Your task to perform on an android device: Go to CNN.com Image 0: 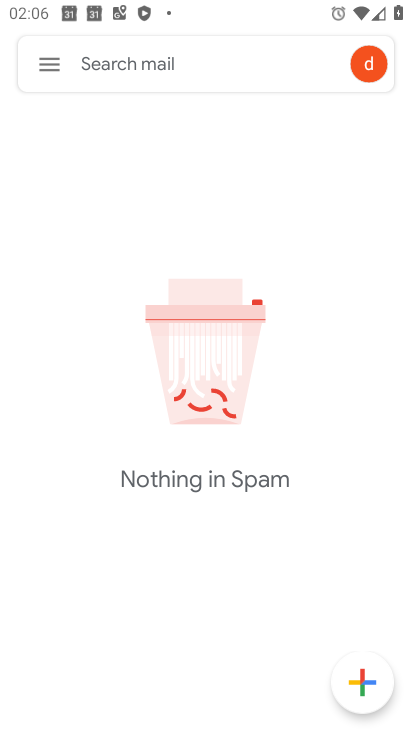
Step 0: press home button
Your task to perform on an android device: Go to CNN.com Image 1: 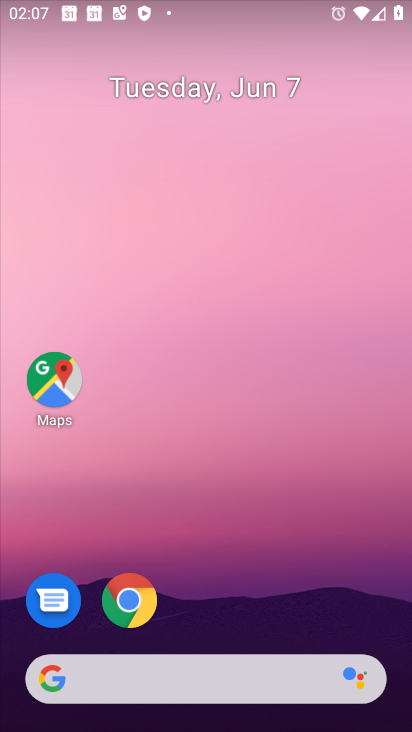
Step 1: click (127, 601)
Your task to perform on an android device: Go to CNN.com Image 2: 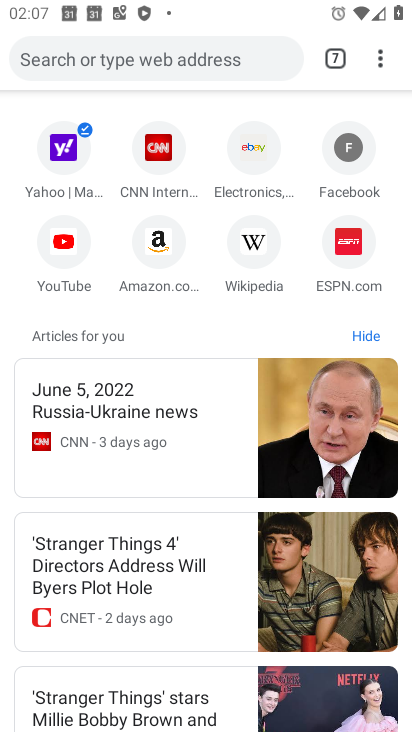
Step 2: click (162, 154)
Your task to perform on an android device: Go to CNN.com Image 3: 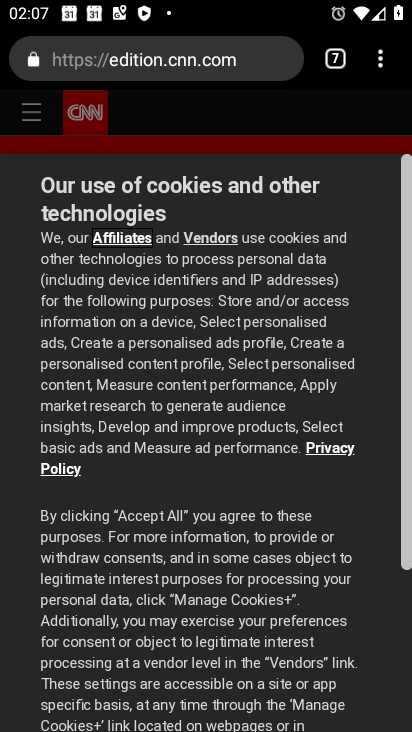
Step 3: task complete